Your task to perform on an android device: Open ESPN.com Image 0: 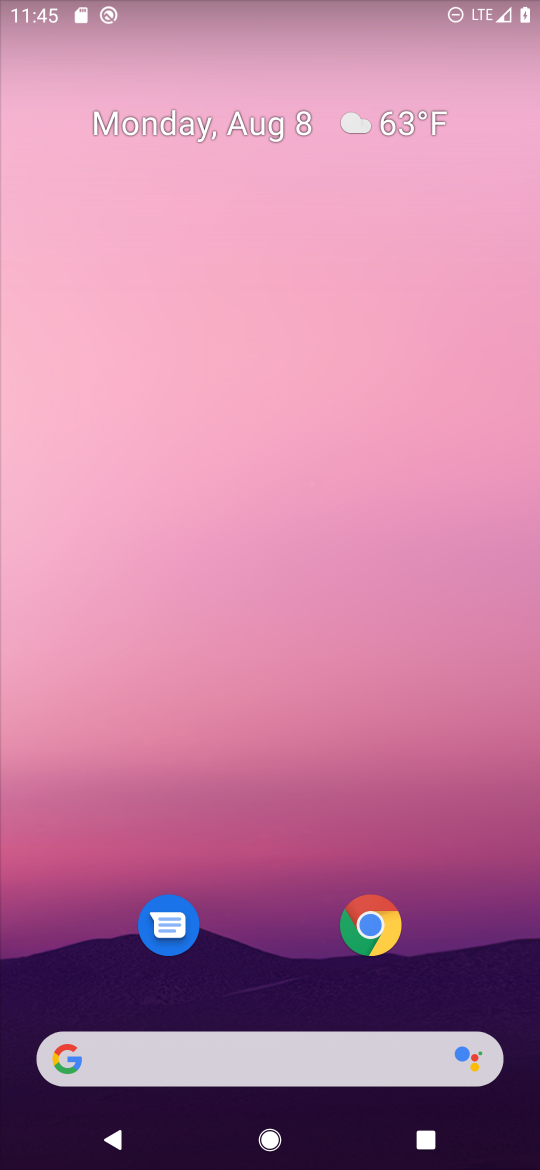
Step 0: drag from (252, 539) to (293, 53)
Your task to perform on an android device: Open ESPN.com Image 1: 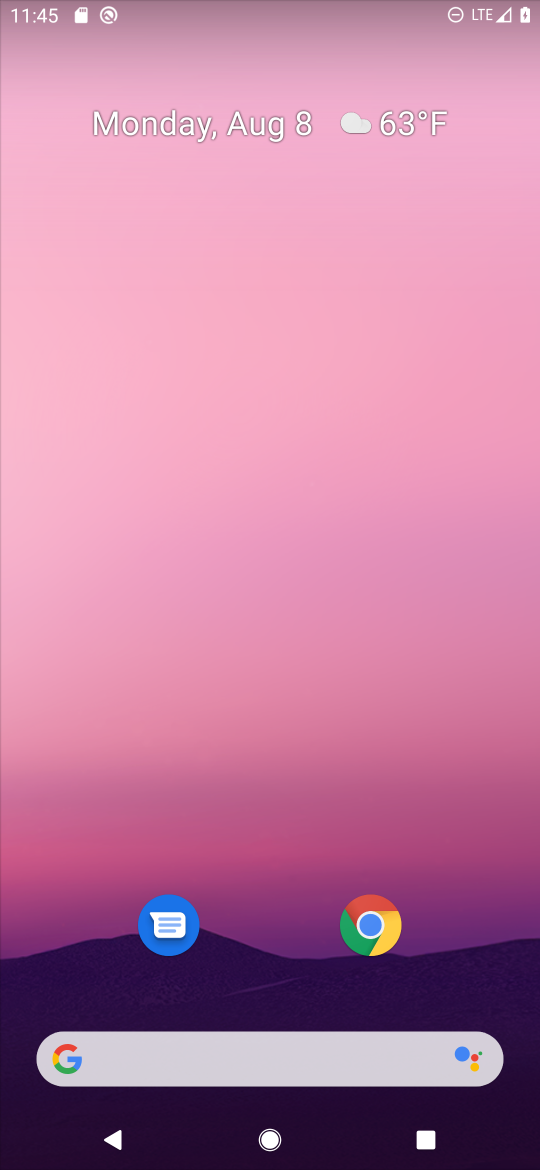
Step 1: drag from (256, 848) to (286, 21)
Your task to perform on an android device: Open ESPN.com Image 2: 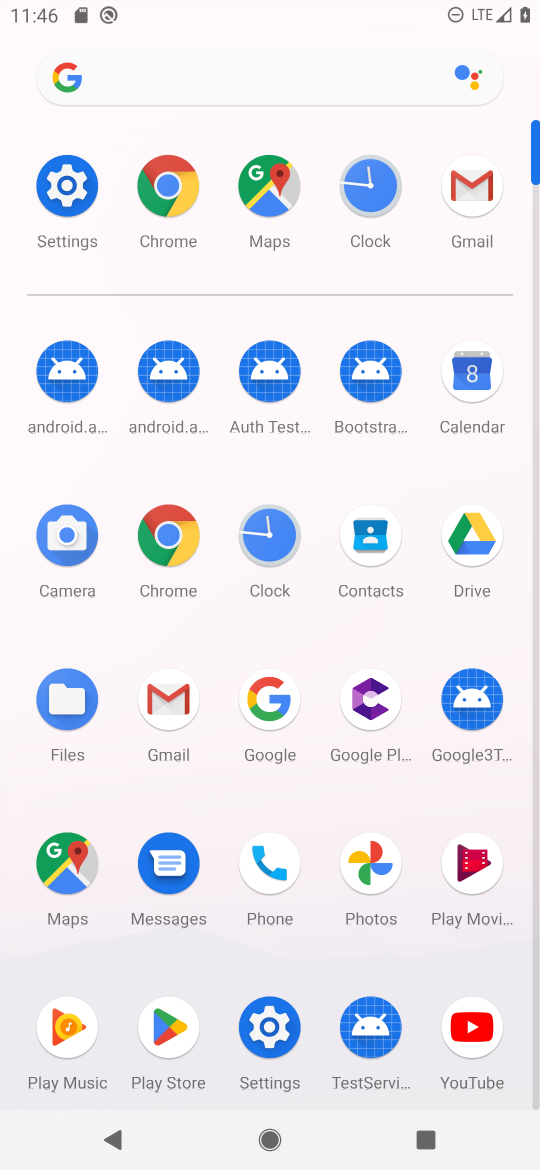
Step 2: click (173, 532)
Your task to perform on an android device: Open ESPN.com Image 3: 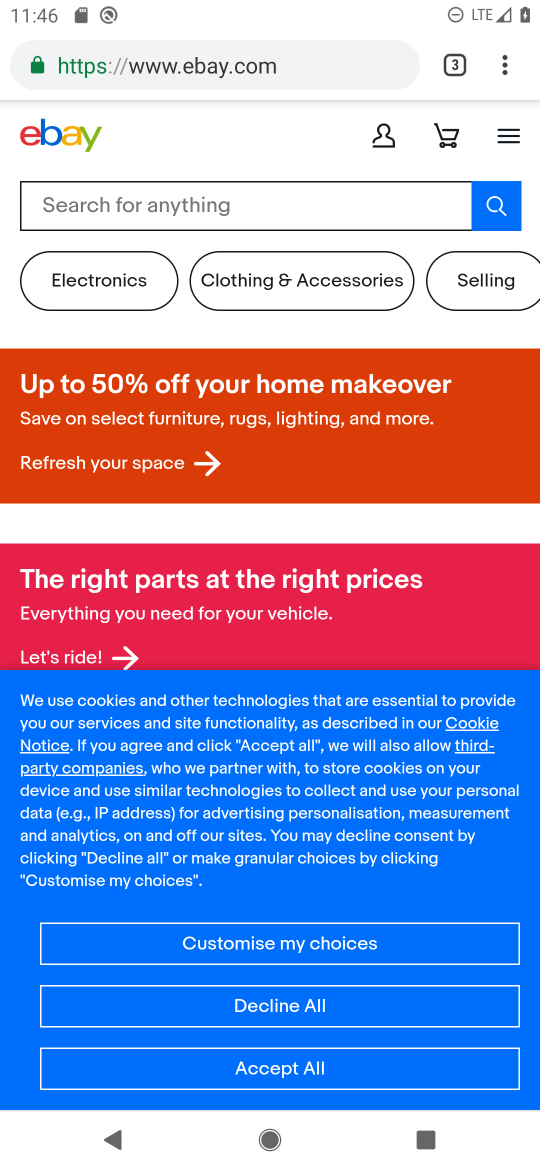
Step 3: click (323, 55)
Your task to perform on an android device: Open ESPN.com Image 4: 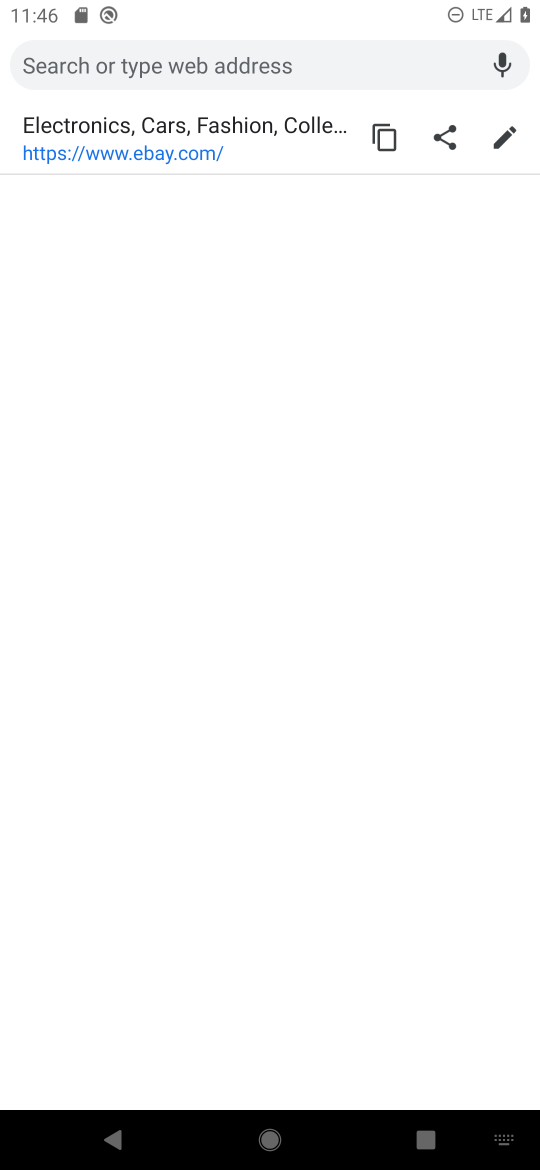
Step 4: type "espn.com"
Your task to perform on an android device: Open ESPN.com Image 5: 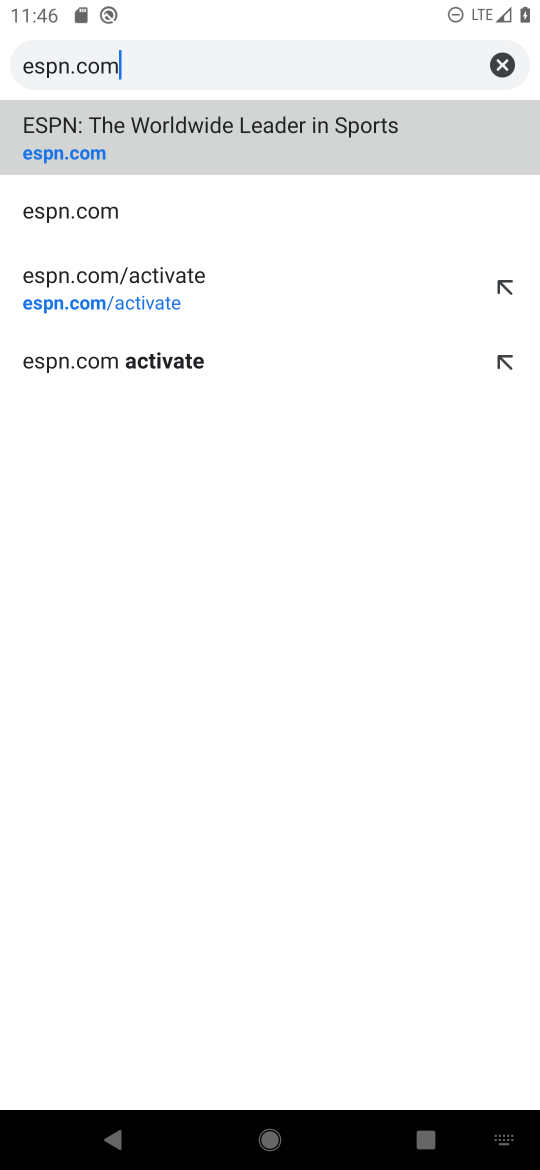
Step 5: click (96, 145)
Your task to perform on an android device: Open ESPN.com Image 6: 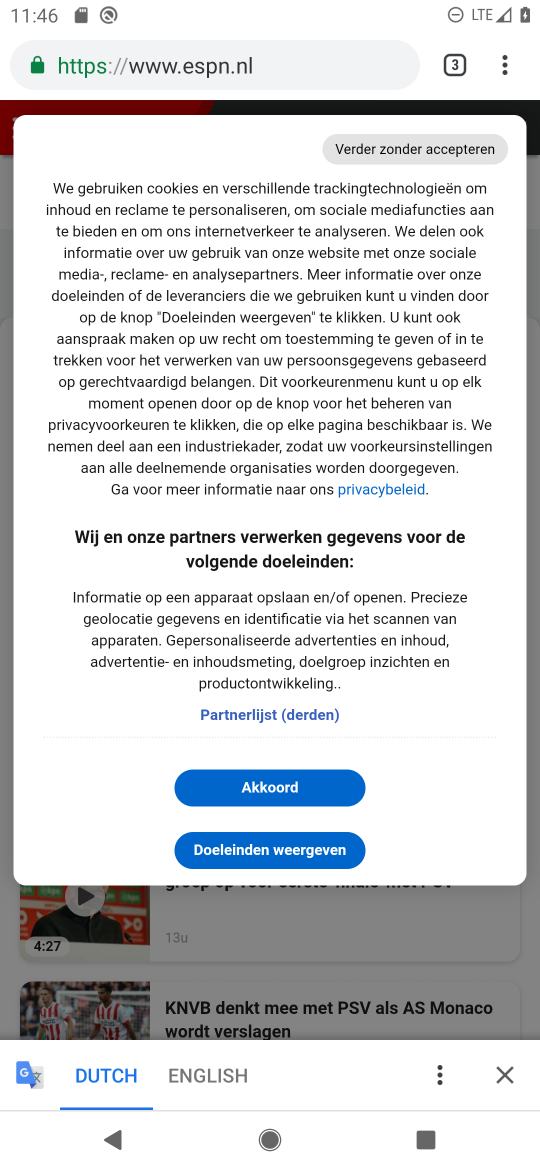
Step 6: task complete